Your task to perform on an android device: Set the phone to "Do not disturb". Image 0: 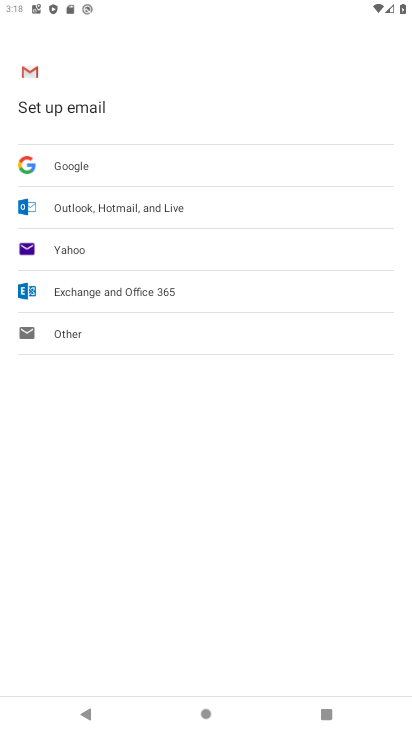
Step 0: press home button
Your task to perform on an android device: Set the phone to "Do not disturb". Image 1: 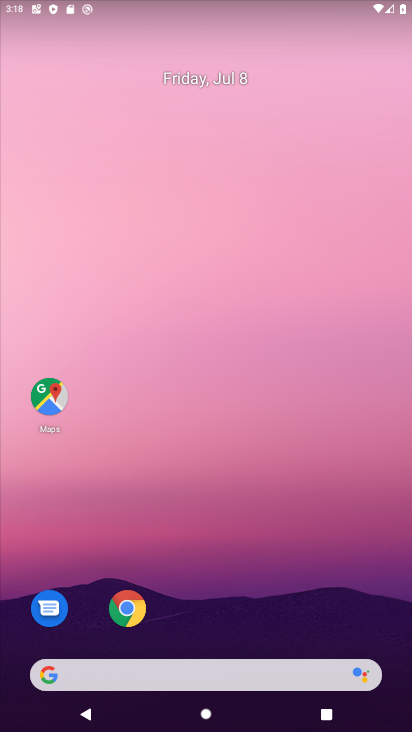
Step 1: click (204, 615)
Your task to perform on an android device: Set the phone to "Do not disturb". Image 2: 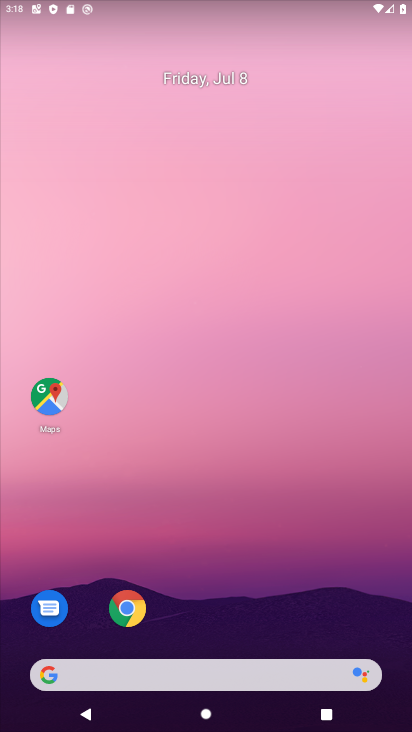
Step 2: drag from (136, 0) to (105, 310)
Your task to perform on an android device: Set the phone to "Do not disturb". Image 3: 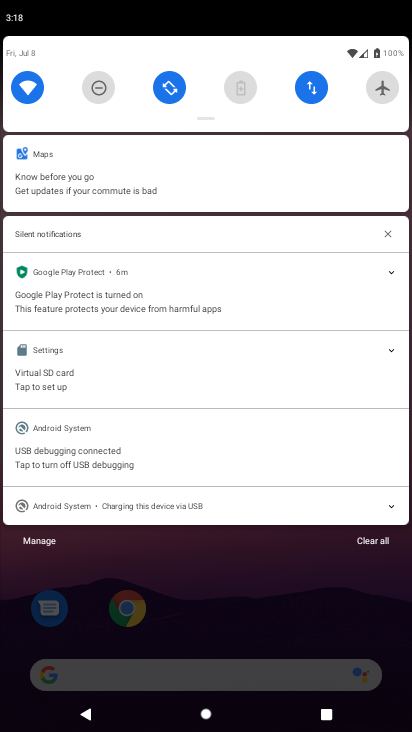
Step 3: click (103, 85)
Your task to perform on an android device: Set the phone to "Do not disturb". Image 4: 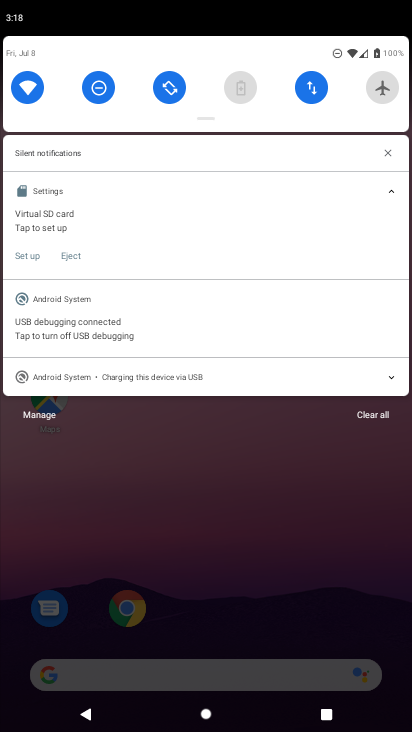
Step 4: task complete